Your task to perform on an android device: clear all cookies in the chrome app Image 0: 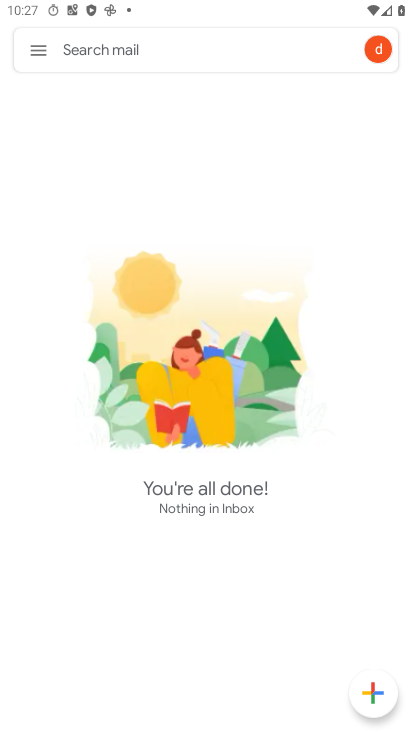
Step 0: press home button
Your task to perform on an android device: clear all cookies in the chrome app Image 1: 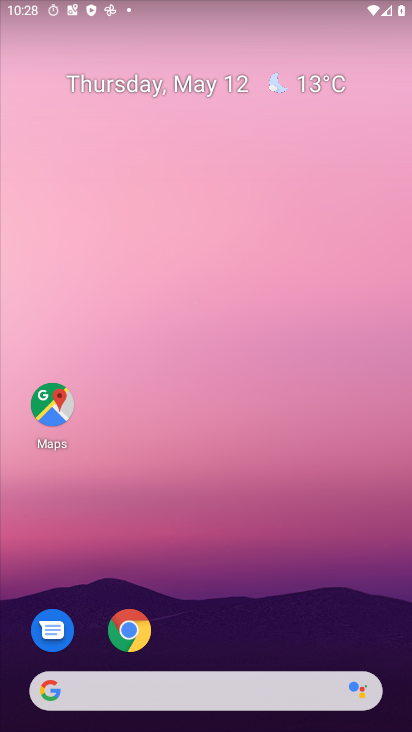
Step 1: click (125, 649)
Your task to perform on an android device: clear all cookies in the chrome app Image 2: 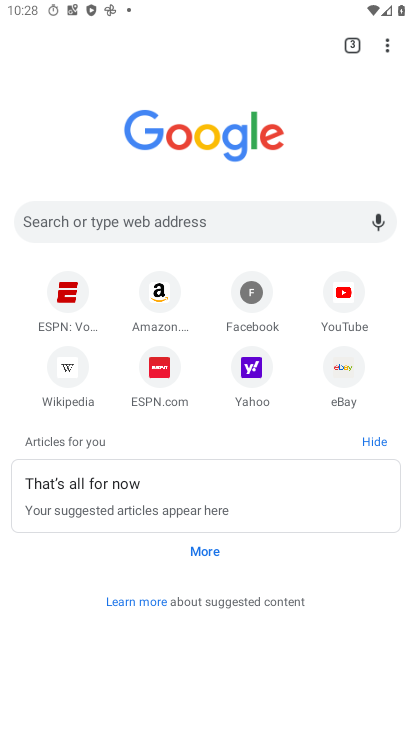
Step 2: drag from (377, 53) to (240, 322)
Your task to perform on an android device: clear all cookies in the chrome app Image 3: 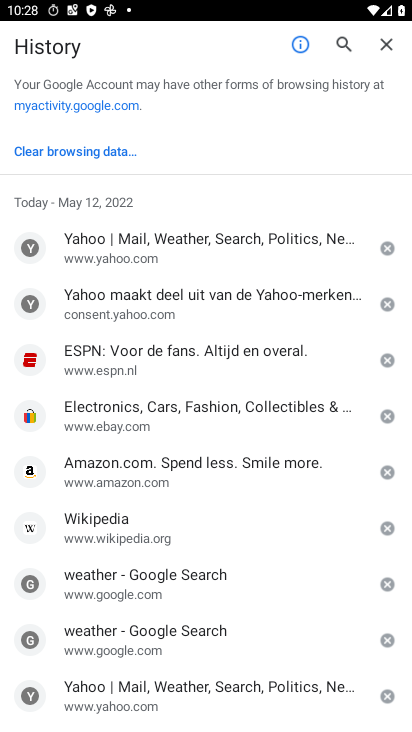
Step 3: click (28, 152)
Your task to perform on an android device: clear all cookies in the chrome app Image 4: 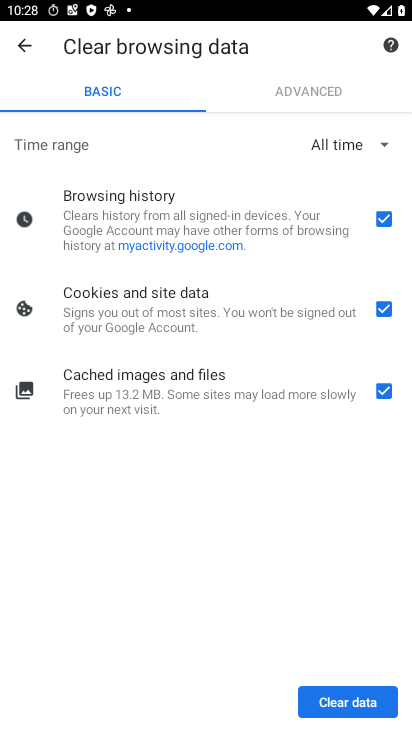
Step 4: click (369, 207)
Your task to perform on an android device: clear all cookies in the chrome app Image 5: 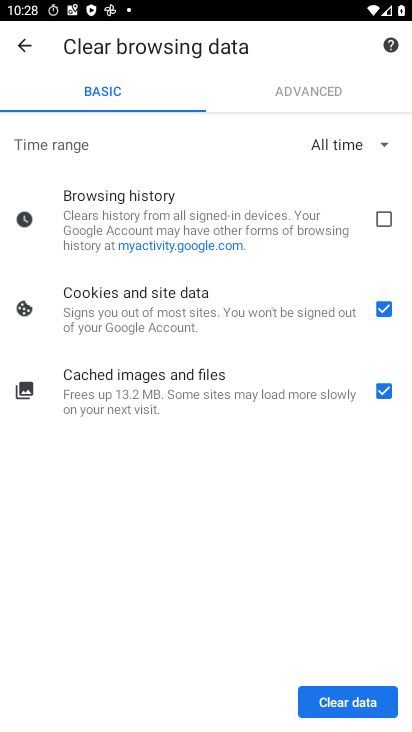
Step 5: click (384, 386)
Your task to perform on an android device: clear all cookies in the chrome app Image 6: 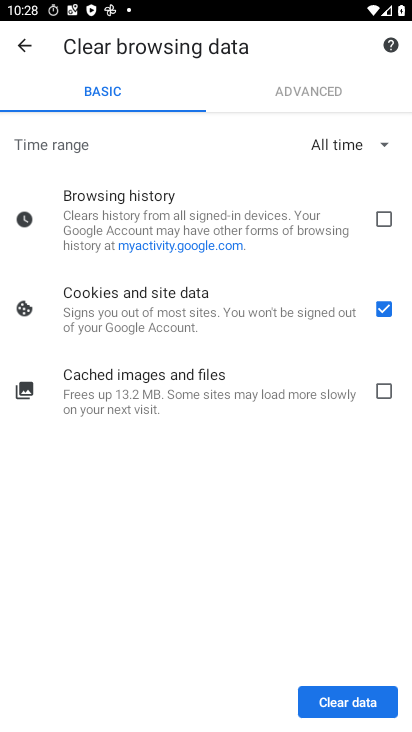
Step 6: click (356, 713)
Your task to perform on an android device: clear all cookies in the chrome app Image 7: 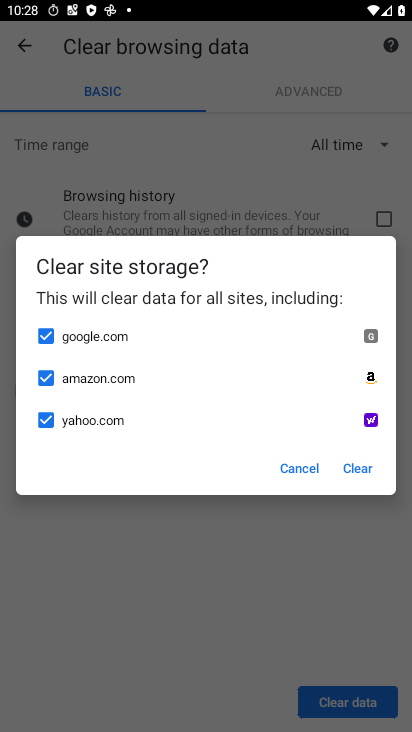
Step 7: click (353, 462)
Your task to perform on an android device: clear all cookies in the chrome app Image 8: 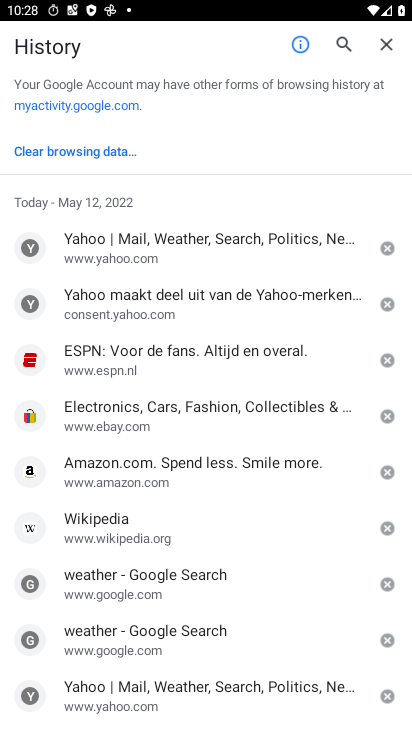
Step 8: task complete